Your task to perform on an android device: Check the weather Image 0: 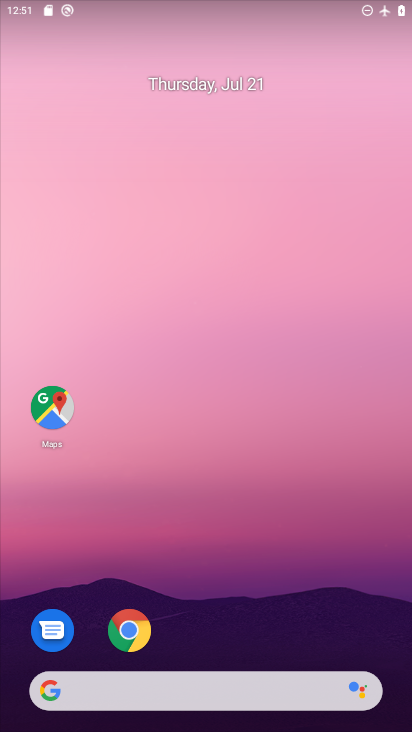
Step 0: drag from (398, 691) to (397, 234)
Your task to perform on an android device: Check the weather Image 1: 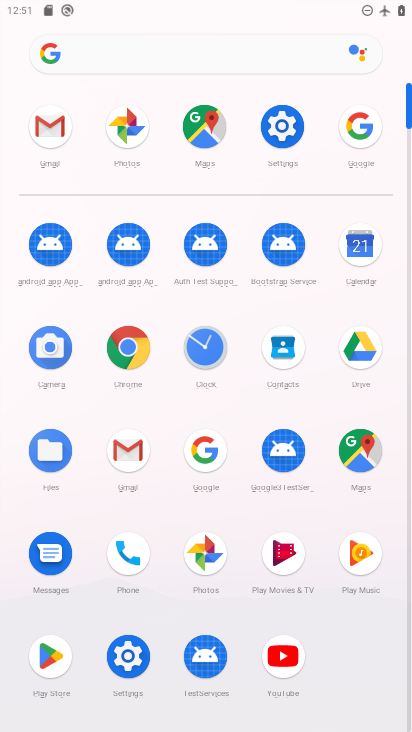
Step 1: click (199, 455)
Your task to perform on an android device: Check the weather Image 2: 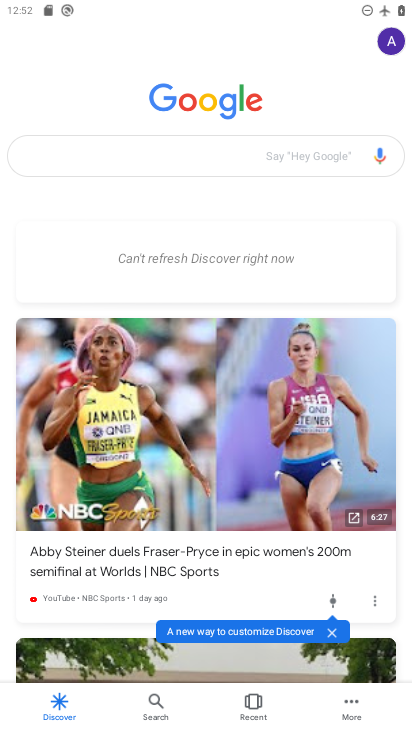
Step 2: task complete